Your task to perform on an android device: set the stopwatch Image 0: 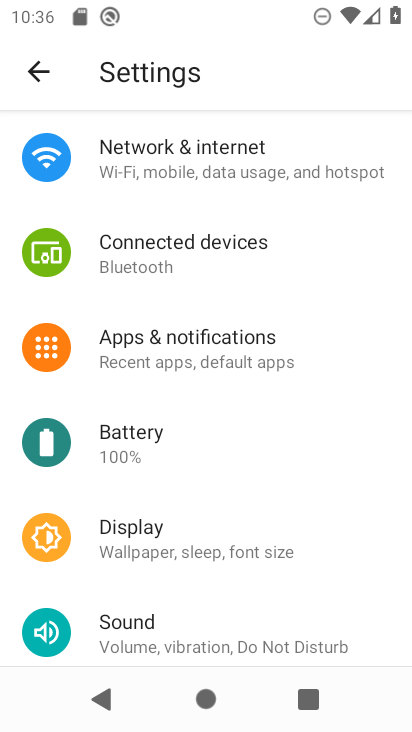
Step 0: press home button
Your task to perform on an android device: set the stopwatch Image 1: 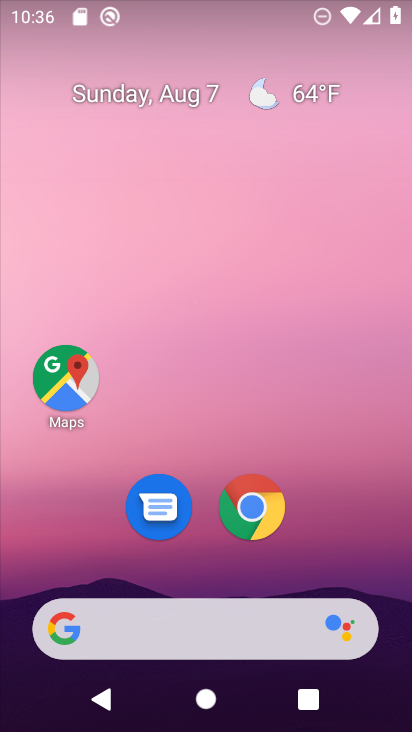
Step 1: drag from (328, 325) to (324, 104)
Your task to perform on an android device: set the stopwatch Image 2: 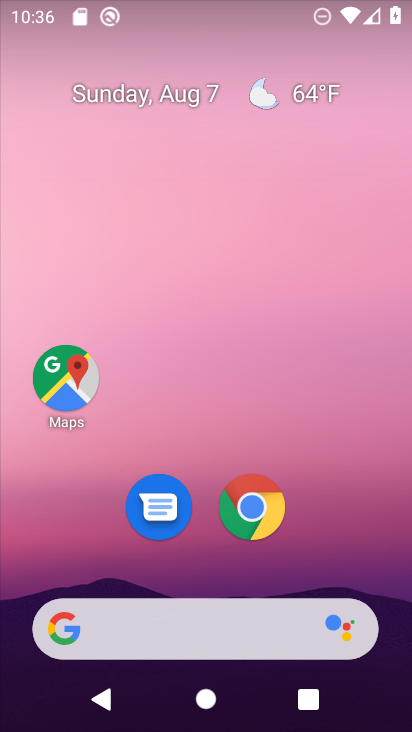
Step 2: click (285, 140)
Your task to perform on an android device: set the stopwatch Image 3: 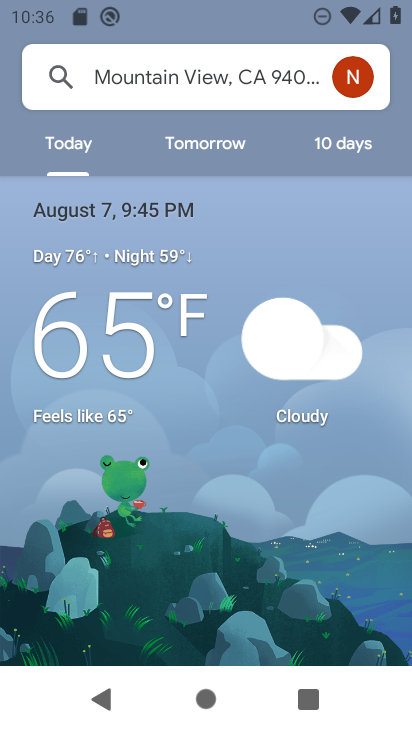
Step 3: press home button
Your task to perform on an android device: set the stopwatch Image 4: 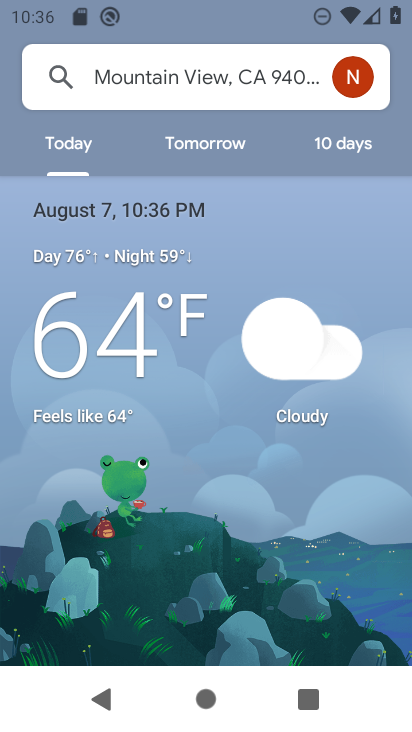
Step 4: press home button
Your task to perform on an android device: set the stopwatch Image 5: 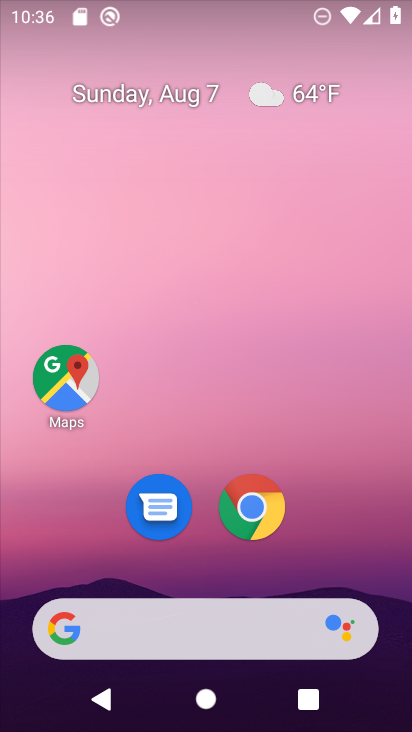
Step 5: drag from (375, 532) to (348, 47)
Your task to perform on an android device: set the stopwatch Image 6: 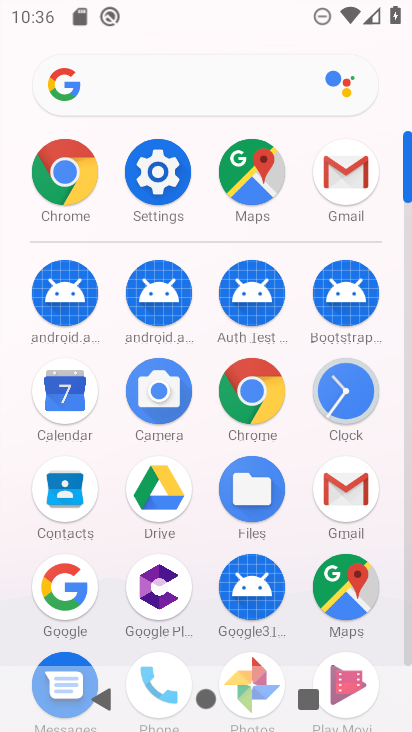
Step 6: click (368, 392)
Your task to perform on an android device: set the stopwatch Image 7: 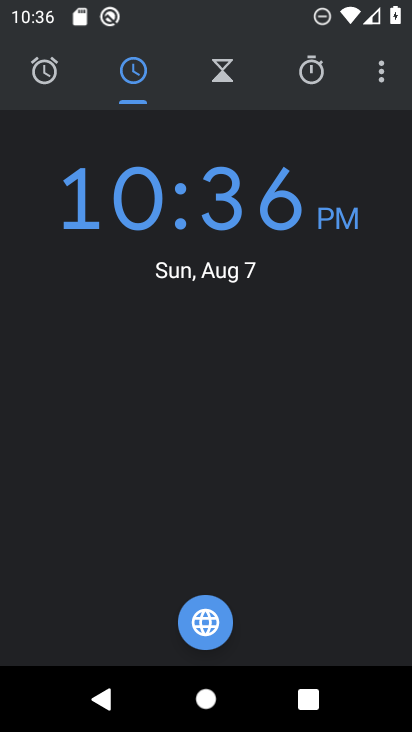
Step 7: click (308, 72)
Your task to perform on an android device: set the stopwatch Image 8: 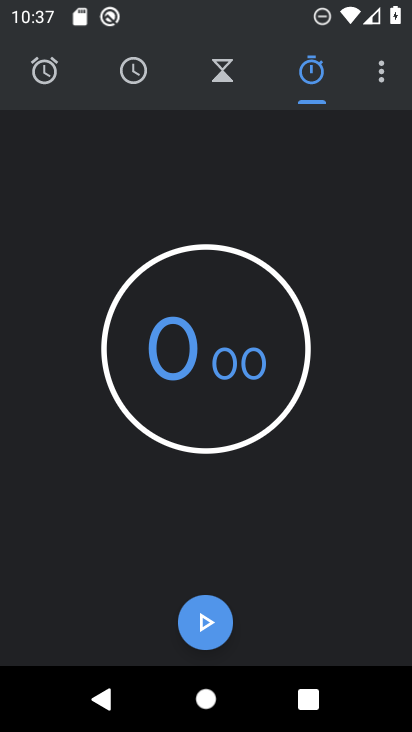
Step 8: click (210, 627)
Your task to perform on an android device: set the stopwatch Image 9: 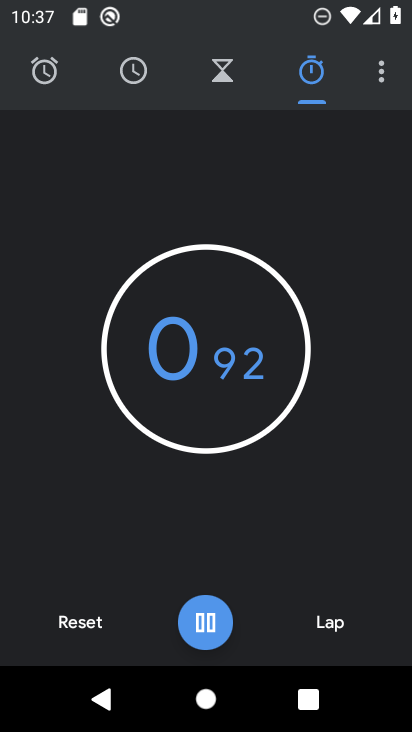
Step 9: click (210, 627)
Your task to perform on an android device: set the stopwatch Image 10: 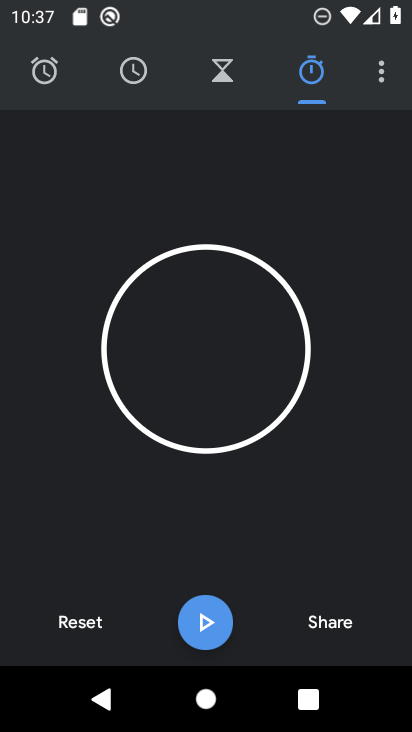
Step 10: task complete